Your task to perform on an android device: make emails show in primary in the gmail app Image 0: 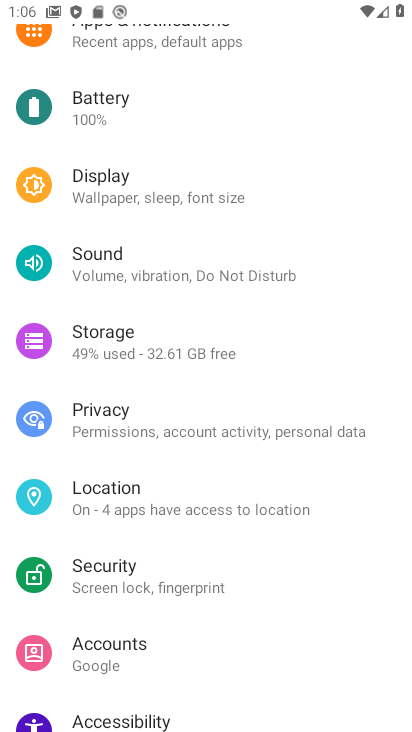
Step 0: press home button
Your task to perform on an android device: make emails show in primary in the gmail app Image 1: 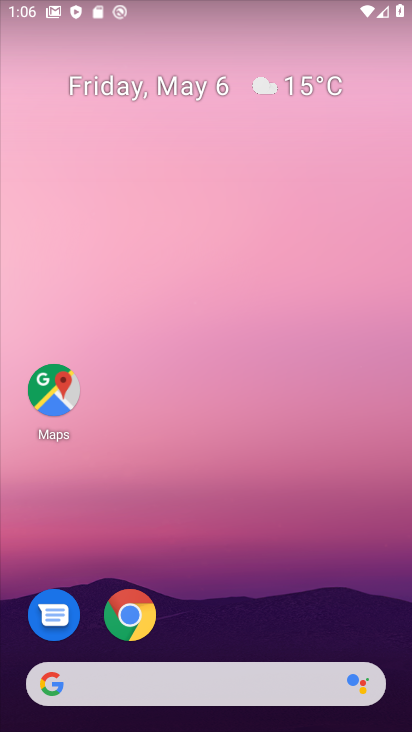
Step 1: drag from (256, 477) to (281, 17)
Your task to perform on an android device: make emails show in primary in the gmail app Image 2: 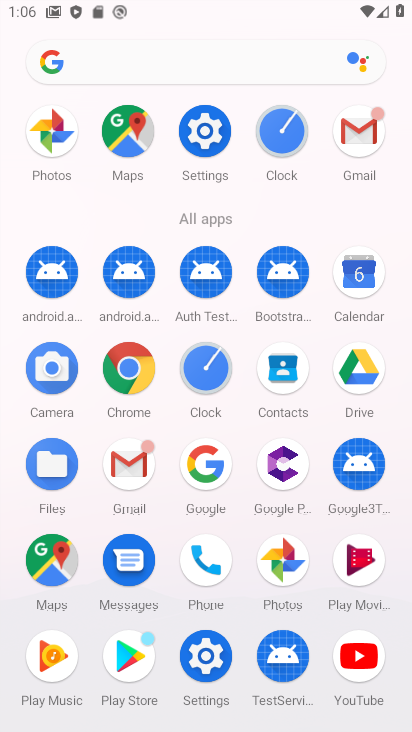
Step 2: click (353, 155)
Your task to perform on an android device: make emails show in primary in the gmail app Image 3: 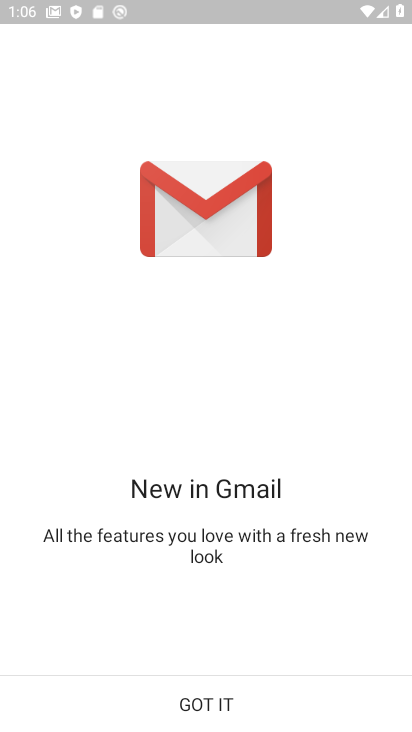
Step 3: click (273, 692)
Your task to perform on an android device: make emails show in primary in the gmail app Image 4: 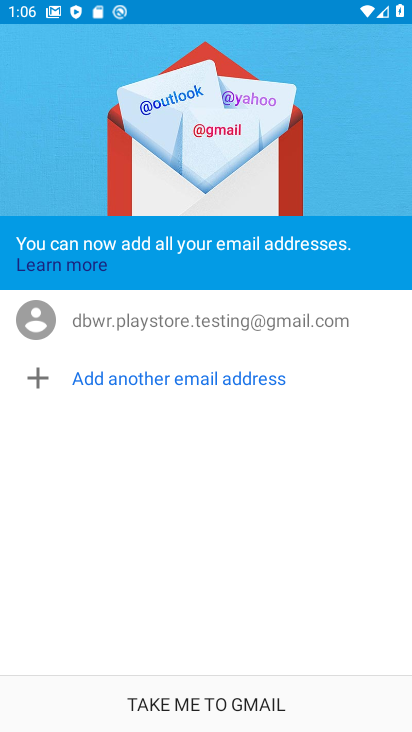
Step 4: click (273, 692)
Your task to perform on an android device: make emails show in primary in the gmail app Image 5: 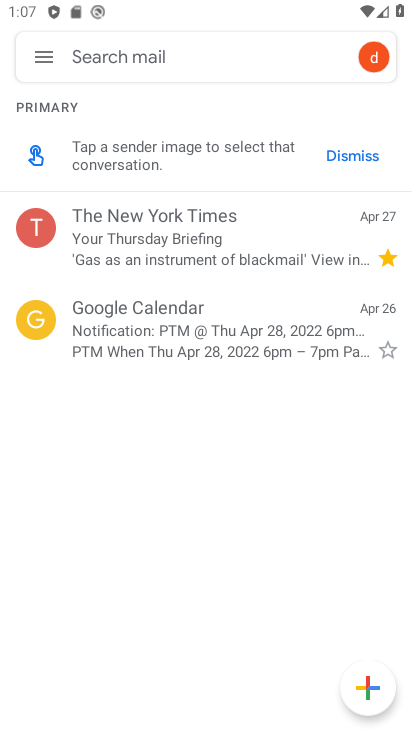
Step 5: click (41, 59)
Your task to perform on an android device: make emails show in primary in the gmail app Image 6: 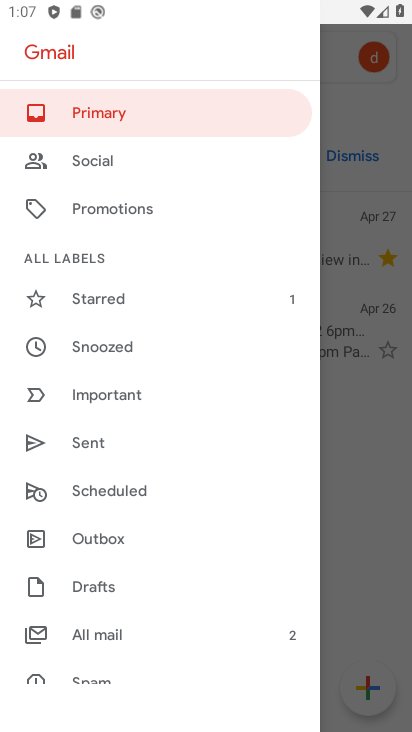
Step 6: drag from (139, 622) to (196, 107)
Your task to perform on an android device: make emails show in primary in the gmail app Image 7: 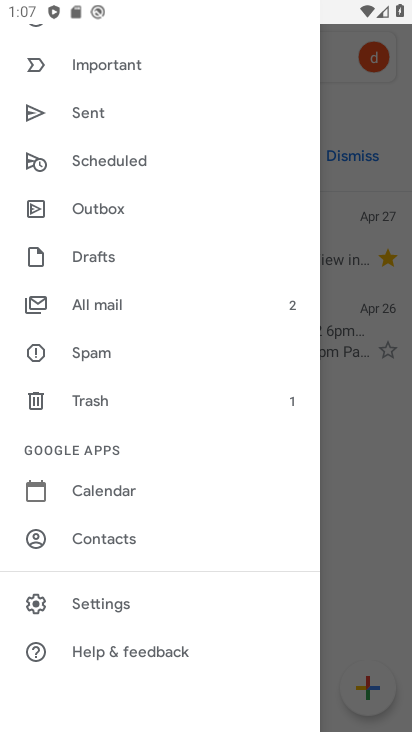
Step 7: click (104, 599)
Your task to perform on an android device: make emails show in primary in the gmail app Image 8: 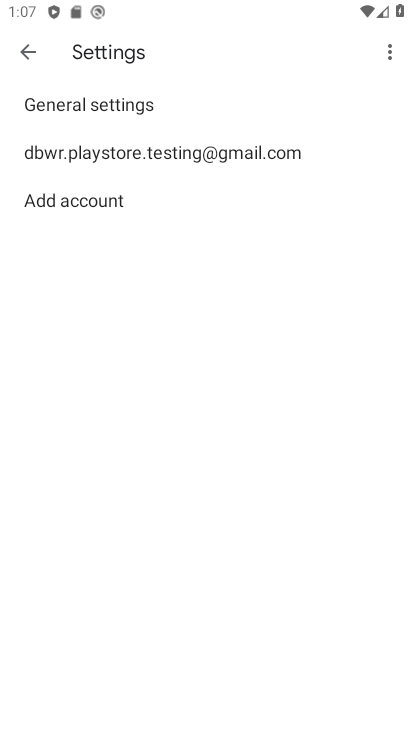
Step 8: click (192, 145)
Your task to perform on an android device: make emails show in primary in the gmail app Image 9: 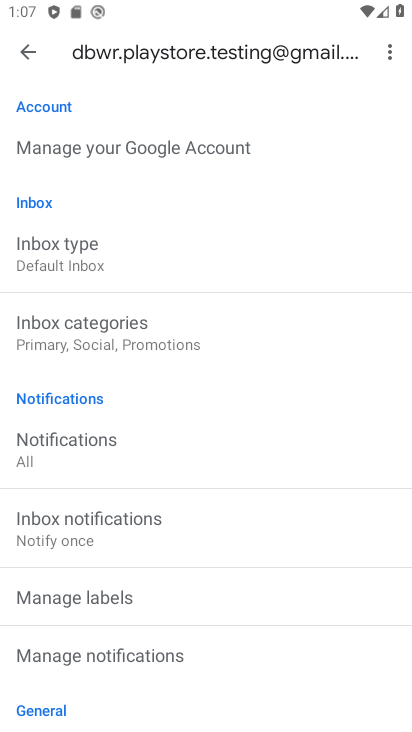
Step 9: click (70, 339)
Your task to perform on an android device: make emails show in primary in the gmail app Image 10: 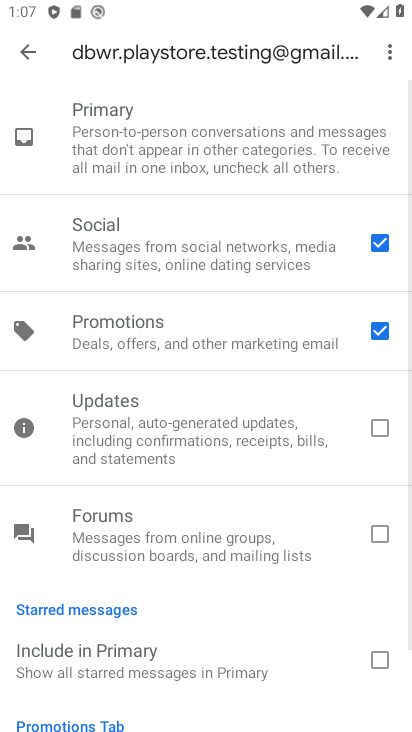
Step 10: click (382, 240)
Your task to perform on an android device: make emails show in primary in the gmail app Image 11: 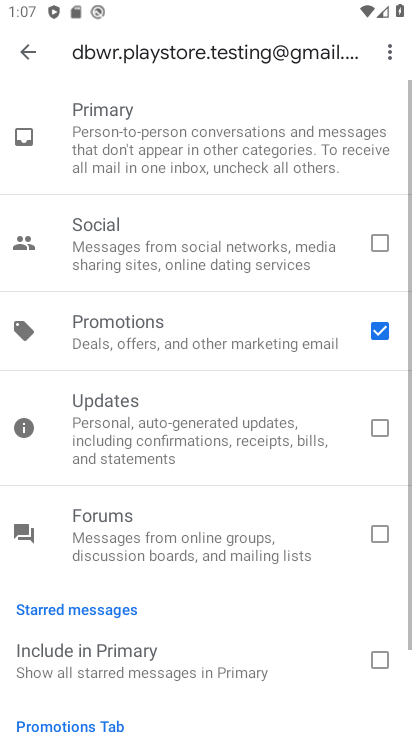
Step 11: click (382, 318)
Your task to perform on an android device: make emails show in primary in the gmail app Image 12: 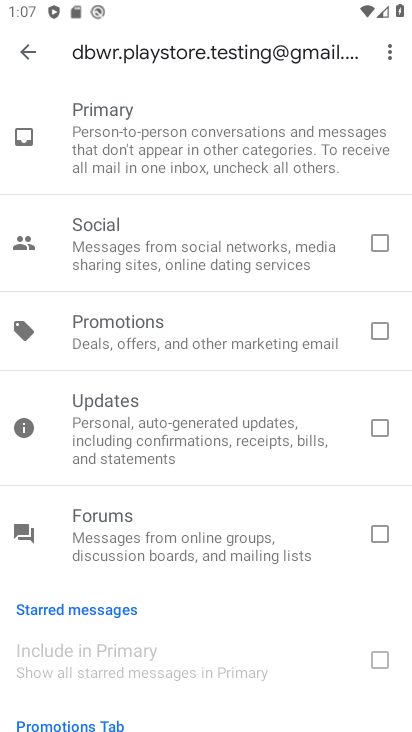
Step 12: click (28, 46)
Your task to perform on an android device: make emails show in primary in the gmail app Image 13: 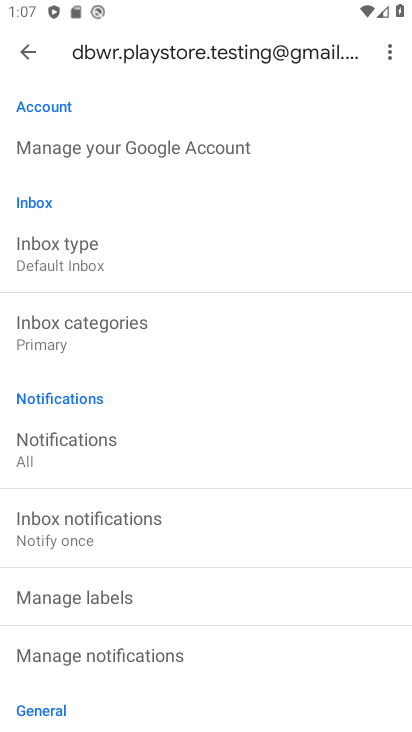
Step 13: task complete